Your task to perform on an android device: star an email in the gmail app Image 0: 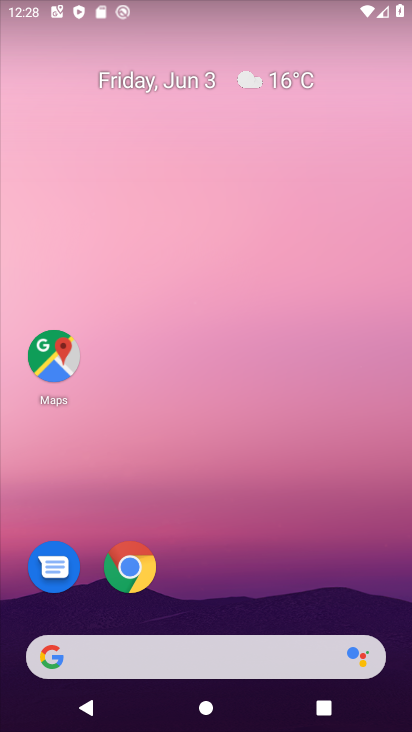
Step 0: drag from (344, 150) to (340, 252)
Your task to perform on an android device: star an email in the gmail app Image 1: 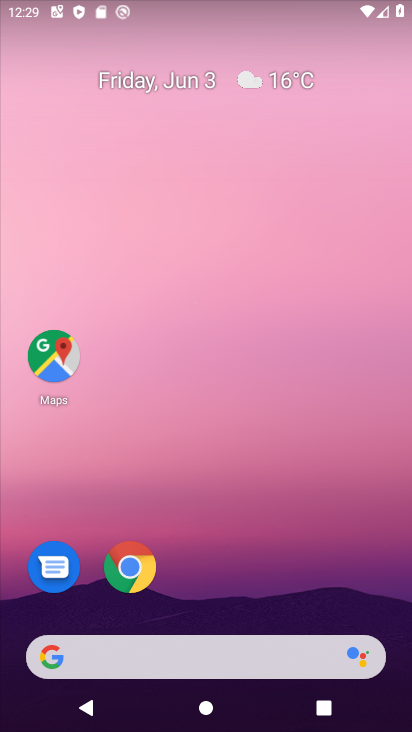
Step 1: drag from (323, 607) to (324, 101)
Your task to perform on an android device: star an email in the gmail app Image 2: 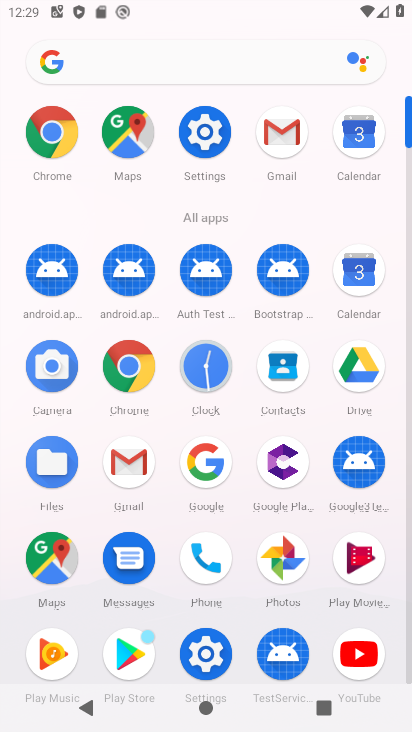
Step 2: click (126, 463)
Your task to perform on an android device: star an email in the gmail app Image 3: 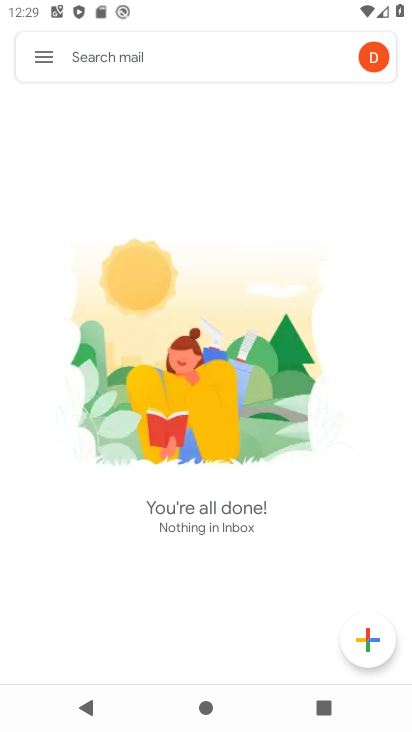
Step 3: click (46, 55)
Your task to perform on an android device: star an email in the gmail app Image 4: 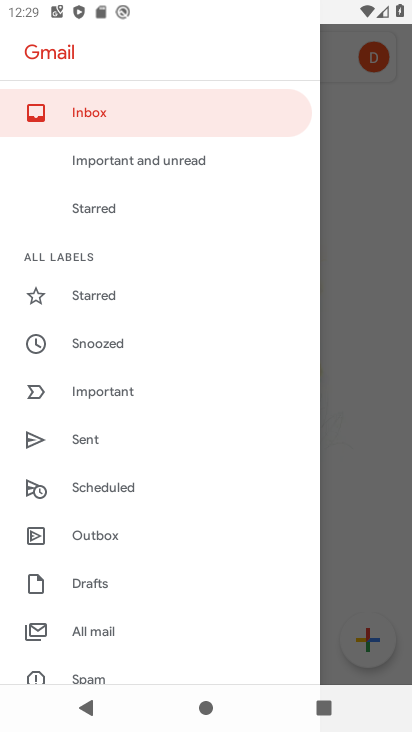
Step 4: click (102, 632)
Your task to perform on an android device: star an email in the gmail app Image 5: 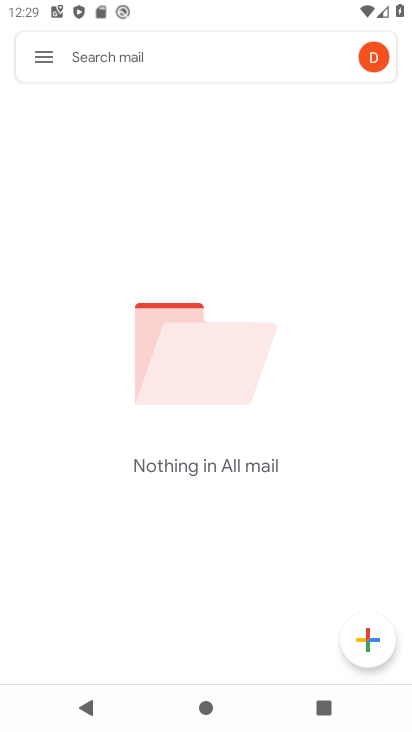
Step 5: task complete